Your task to perform on an android device: toggle airplane mode Image 0: 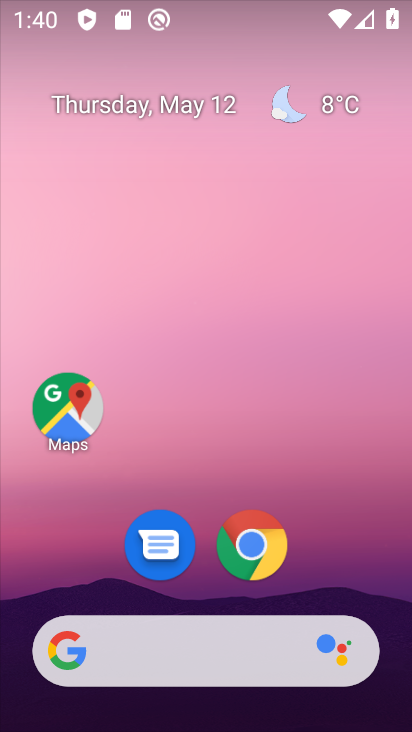
Step 0: drag from (398, 647) to (299, 5)
Your task to perform on an android device: toggle airplane mode Image 1: 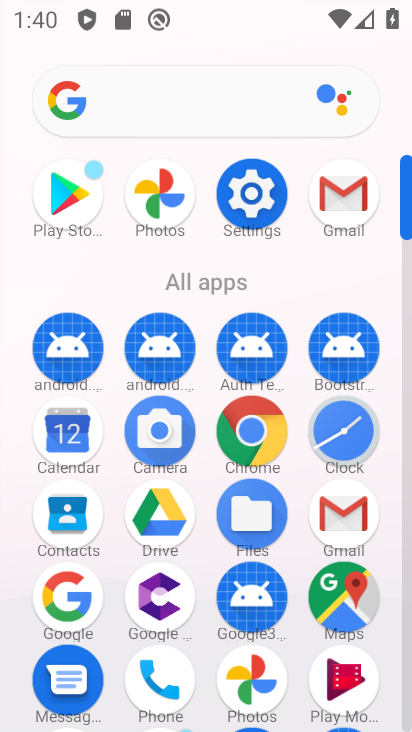
Step 1: click (410, 713)
Your task to perform on an android device: toggle airplane mode Image 2: 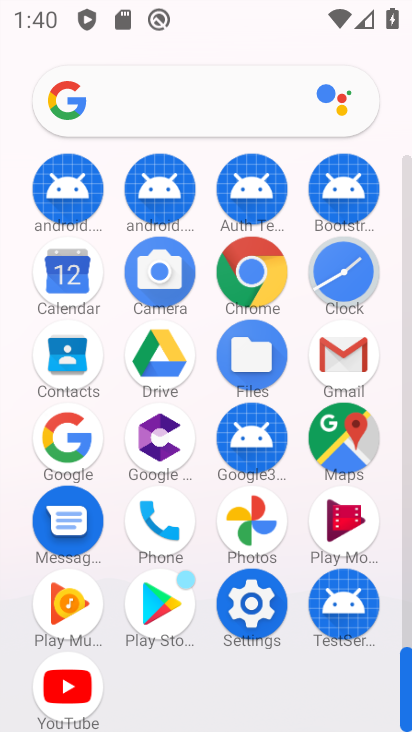
Step 2: click (248, 601)
Your task to perform on an android device: toggle airplane mode Image 3: 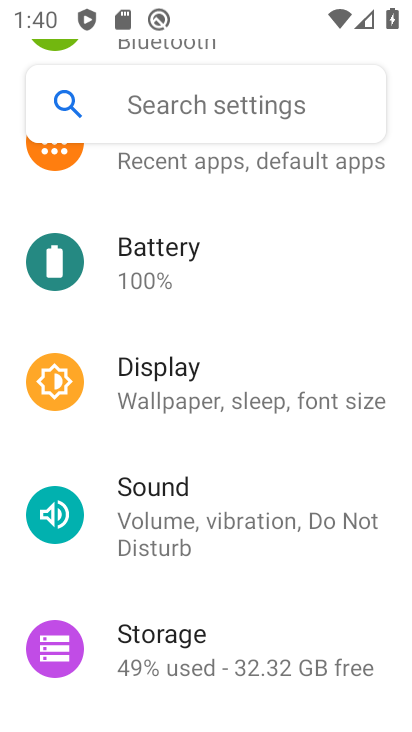
Step 3: drag from (299, 255) to (273, 544)
Your task to perform on an android device: toggle airplane mode Image 4: 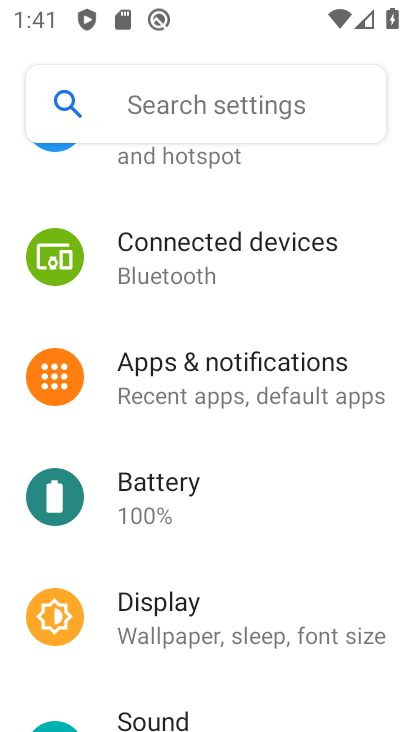
Step 4: drag from (296, 292) to (280, 560)
Your task to perform on an android device: toggle airplane mode Image 5: 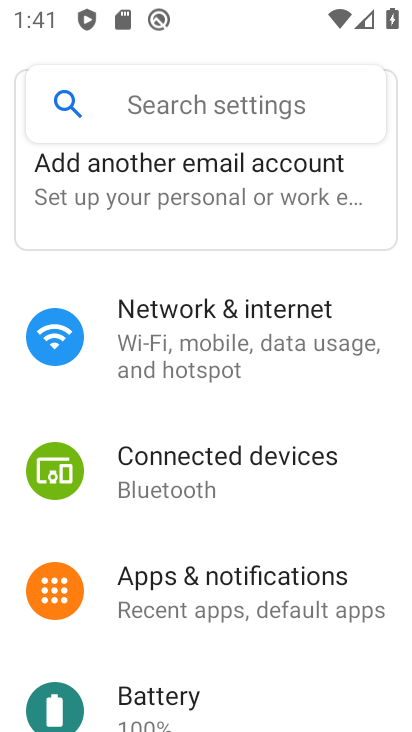
Step 5: click (197, 337)
Your task to perform on an android device: toggle airplane mode Image 6: 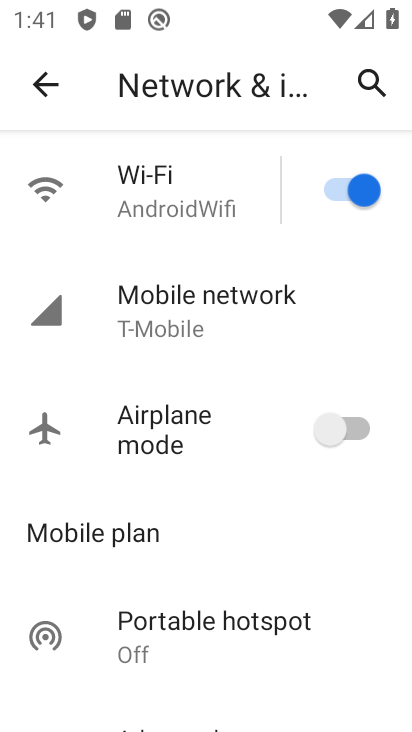
Step 6: click (355, 426)
Your task to perform on an android device: toggle airplane mode Image 7: 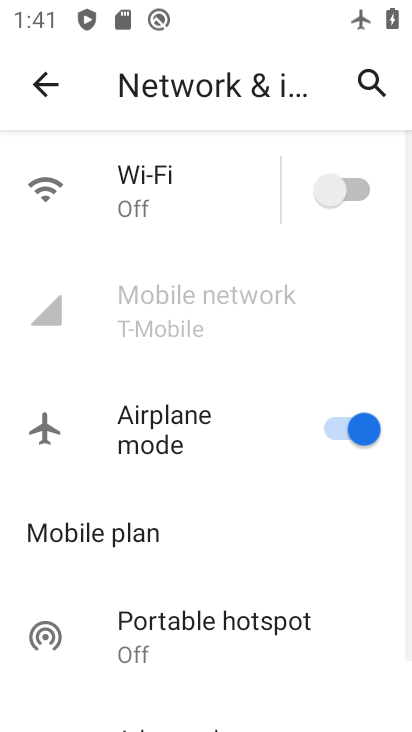
Step 7: task complete